Your task to perform on an android device: Search for macbook pro 15 inch on amazon, select the first entry, and add it to the cart. Image 0: 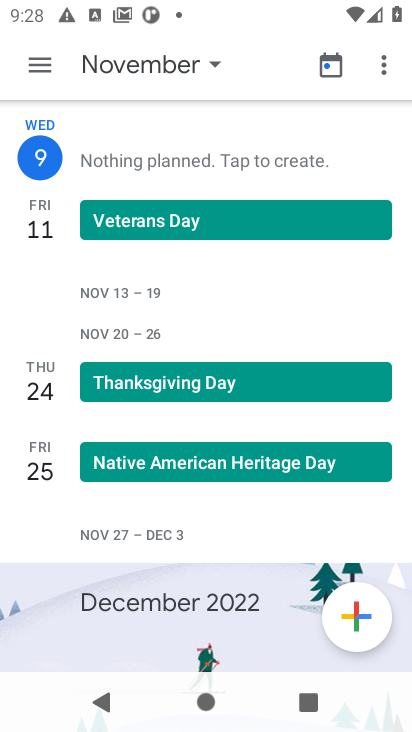
Step 0: press home button
Your task to perform on an android device: Search for macbook pro 15 inch on amazon, select the first entry, and add it to the cart. Image 1: 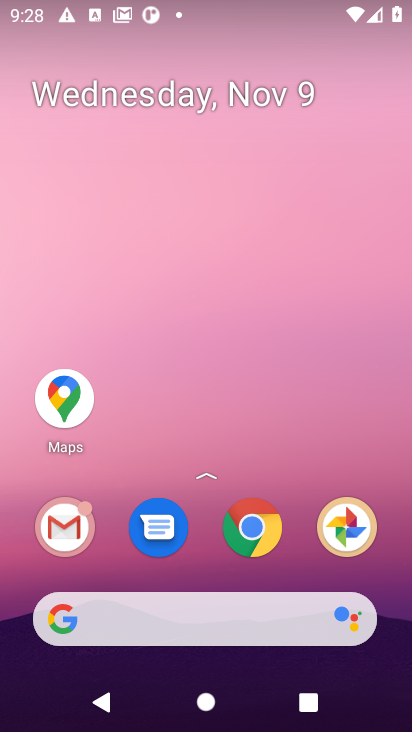
Step 1: click (245, 544)
Your task to perform on an android device: Search for macbook pro 15 inch on amazon, select the first entry, and add it to the cart. Image 2: 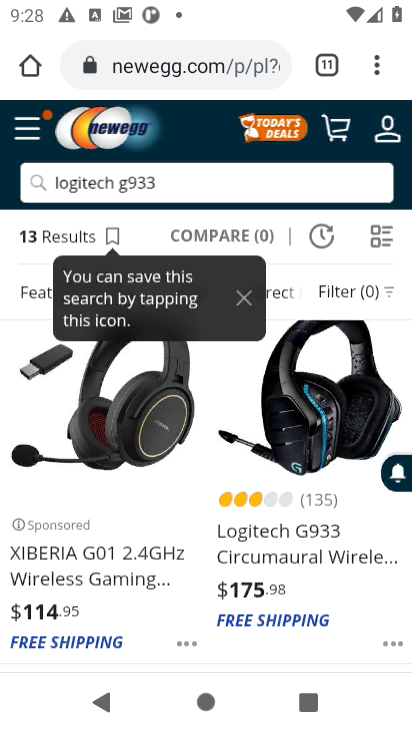
Step 2: click (157, 70)
Your task to perform on an android device: Search for macbook pro 15 inch on amazon, select the first entry, and add it to the cart. Image 3: 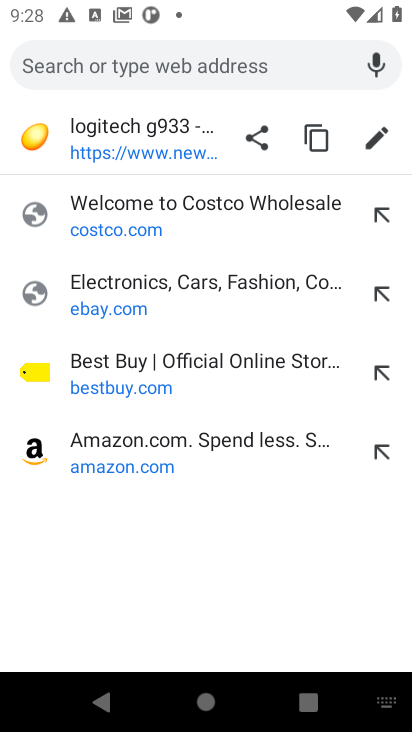
Step 3: click (133, 450)
Your task to perform on an android device: Search for macbook pro 15 inch on amazon, select the first entry, and add it to the cart. Image 4: 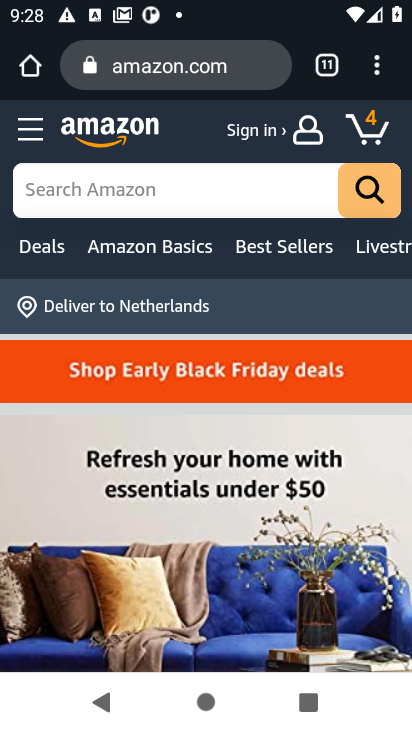
Step 4: click (104, 182)
Your task to perform on an android device: Search for macbook pro 15 inch on amazon, select the first entry, and add it to the cart. Image 5: 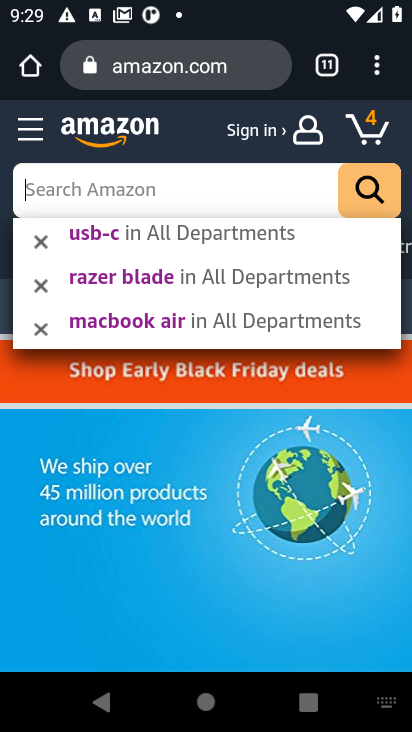
Step 5: type "macbook pro 15 inch"
Your task to perform on an android device: Search for macbook pro 15 inch on amazon, select the first entry, and add it to the cart. Image 6: 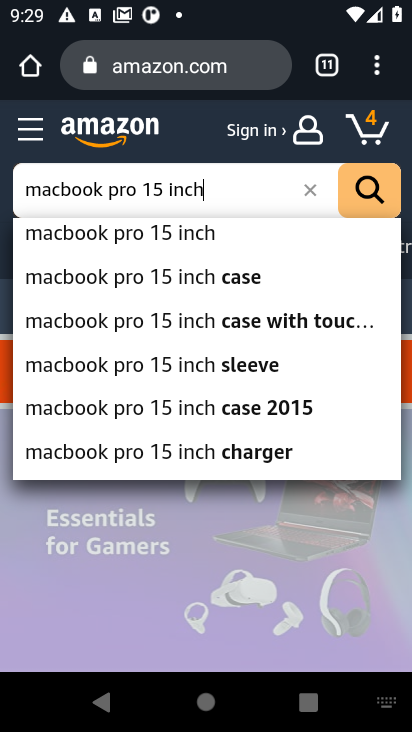
Step 6: click (204, 231)
Your task to perform on an android device: Search for macbook pro 15 inch on amazon, select the first entry, and add it to the cart. Image 7: 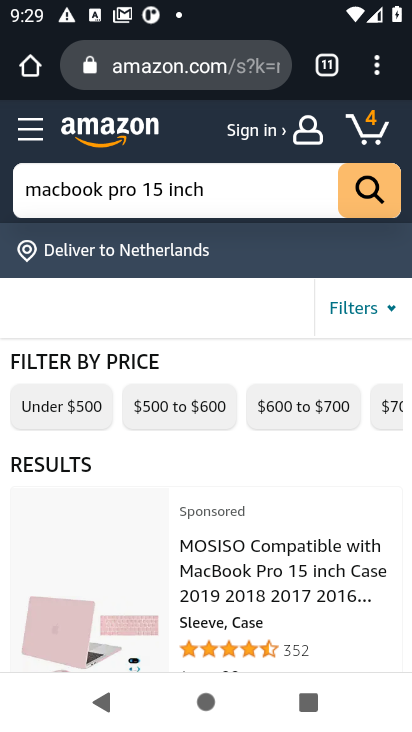
Step 7: drag from (172, 499) to (181, 384)
Your task to perform on an android device: Search for macbook pro 15 inch on amazon, select the first entry, and add it to the cart. Image 8: 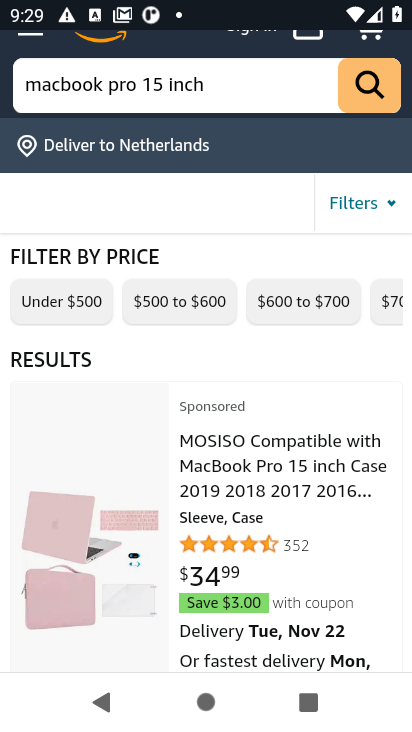
Step 8: drag from (123, 518) to (133, 317)
Your task to perform on an android device: Search for macbook pro 15 inch on amazon, select the first entry, and add it to the cart. Image 9: 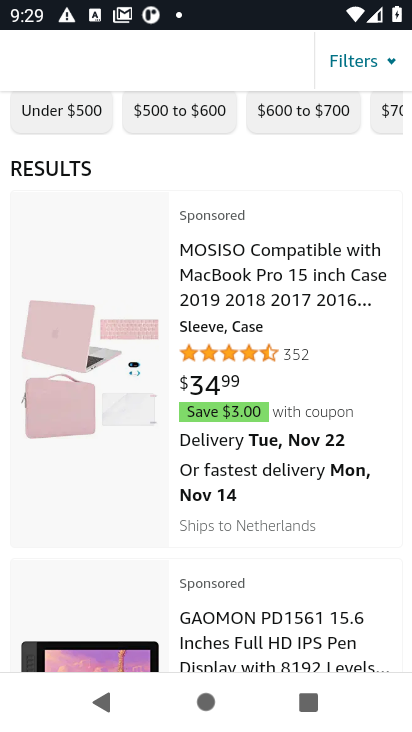
Step 9: click (114, 409)
Your task to perform on an android device: Search for macbook pro 15 inch on amazon, select the first entry, and add it to the cart. Image 10: 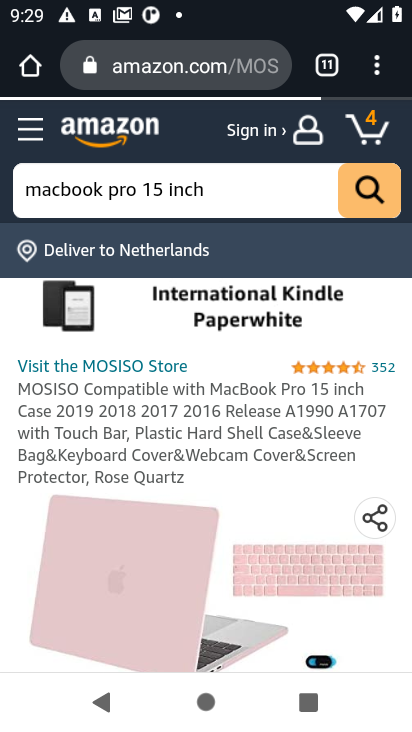
Step 10: drag from (136, 534) to (137, 165)
Your task to perform on an android device: Search for macbook pro 15 inch on amazon, select the first entry, and add it to the cart. Image 11: 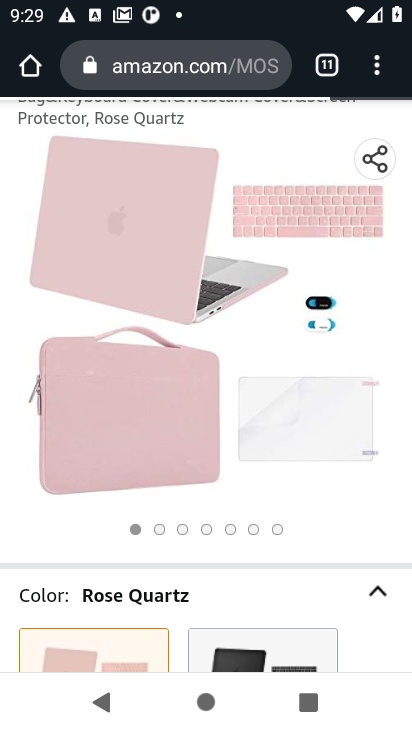
Step 11: drag from (134, 396) to (139, 154)
Your task to perform on an android device: Search for macbook pro 15 inch on amazon, select the first entry, and add it to the cart. Image 12: 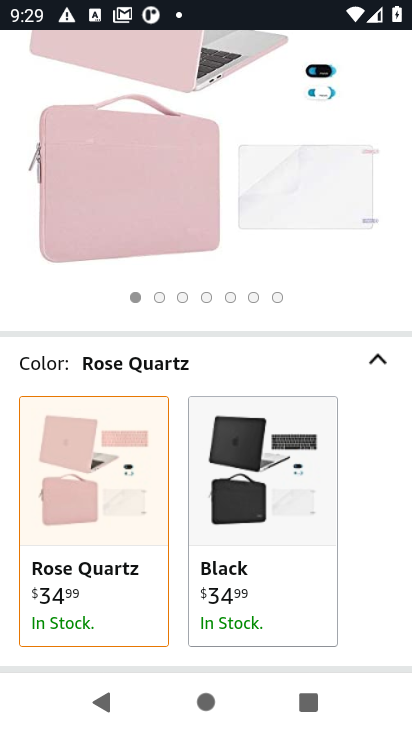
Step 12: drag from (161, 448) to (142, 184)
Your task to perform on an android device: Search for macbook pro 15 inch on amazon, select the first entry, and add it to the cart. Image 13: 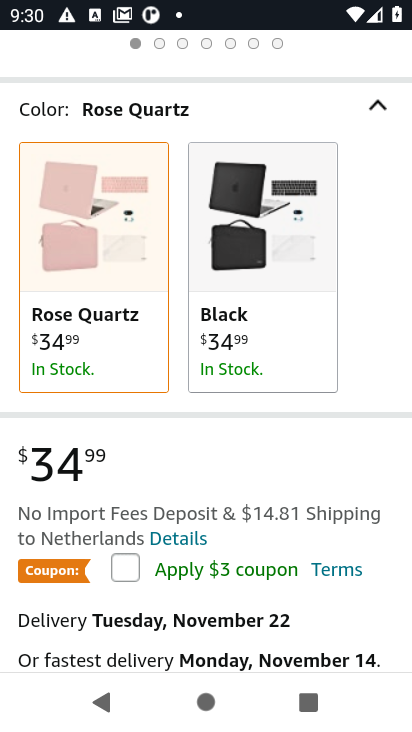
Step 13: drag from (139, 458) to (117, 157)
Your task to perform on an android device: Search for macbook pro 15 inch on amazon, select the first entry, and add it to the cart. Image 14: 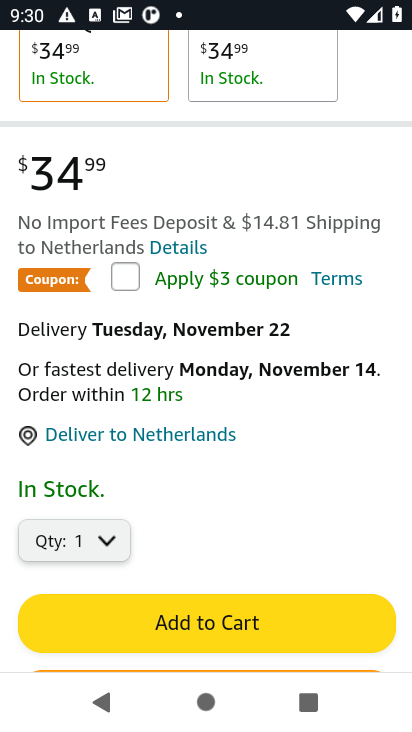
Step 14: drag from (152, 454) to (134, 221)
Your task to perform on an android device: Search for macbook pro 15 inch on amazon, select the first entry, and add it to the cart. Image 15: 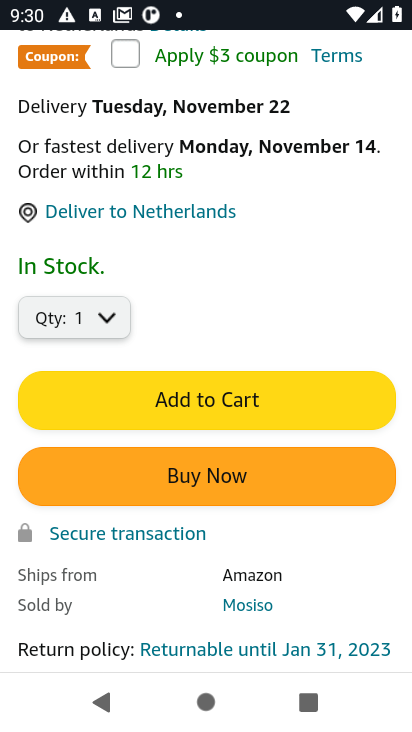
Step 15: click (170, 395)
Your task to perform on an android device: Search for macbook pro 15 inch on amazon, select the first entry, and add it to the cart. Image 16: 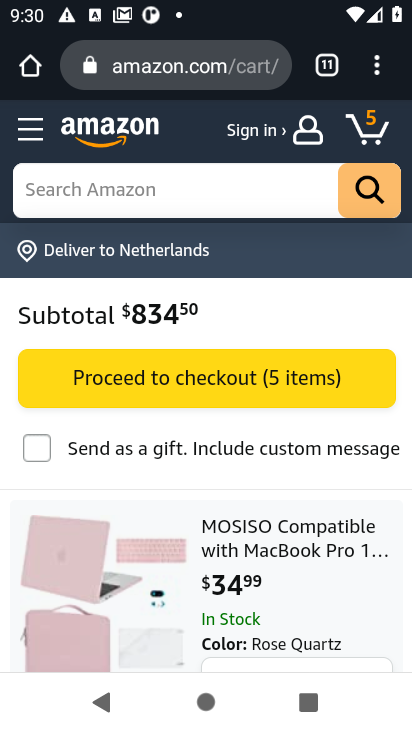
Step 16: task complete